Your task to perform on an android device: turn off smart reply in the gmail app Image 0: 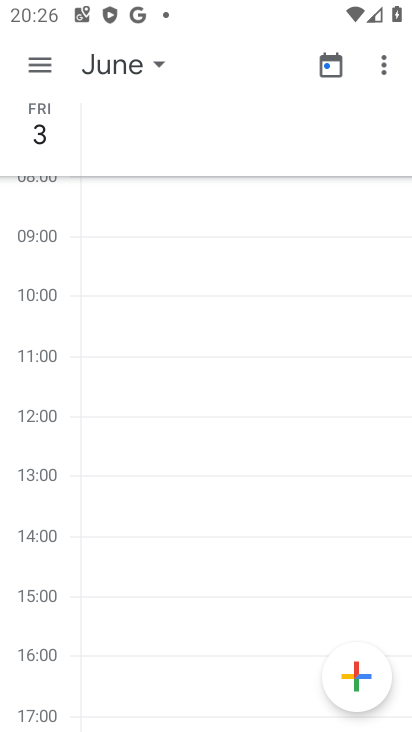
Step 0: press home button
Your task to perform on an android device: turn off smart reply in the gmail app Image 1: 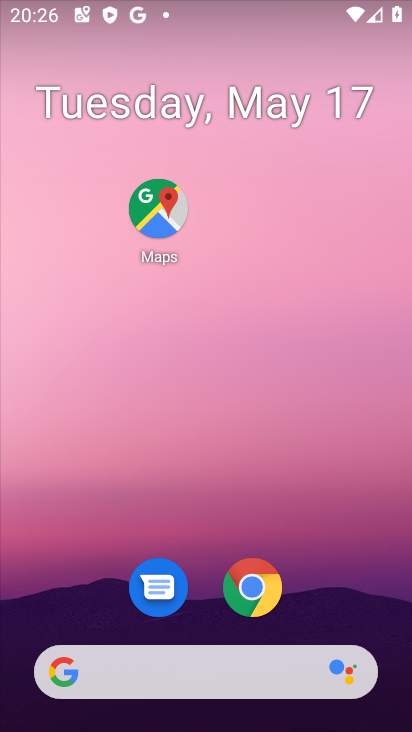
Step 1: drag from (33, 608) to (277, 186)
Your task to perform on an android device: turn off smart reply in the gmail app Image 2: 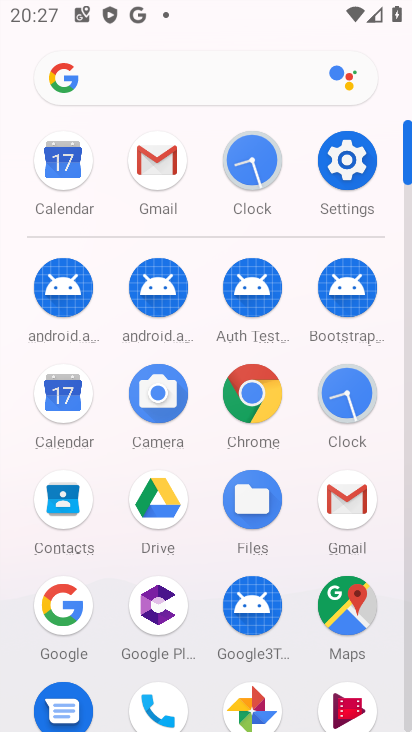
Step 2: click (157, 170)
Your task to perform on an android device: turn off smart reply in the gmail app Image 3: 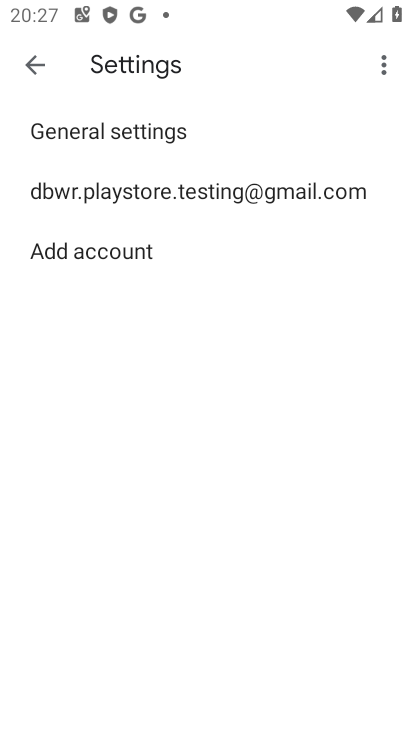
Step 3: click (173, 191)
Your task to perform on an android device: turn off smart reply in the gmail app Image 4: 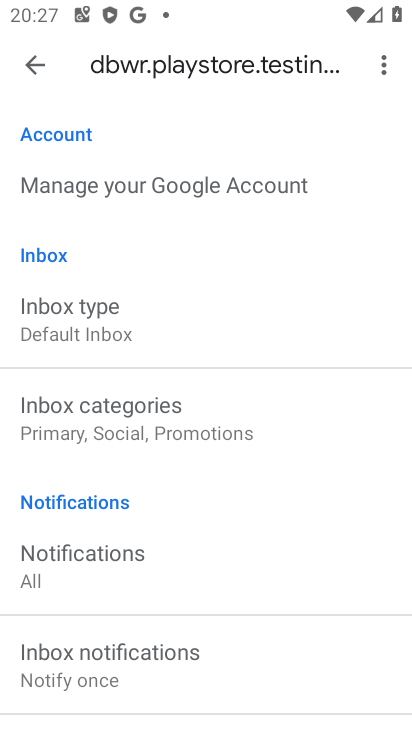
Step 4: drag from (12, 687) to (322, 119)
Your task to perform on an android device: turn off smart reply in the gmail app Image 5: 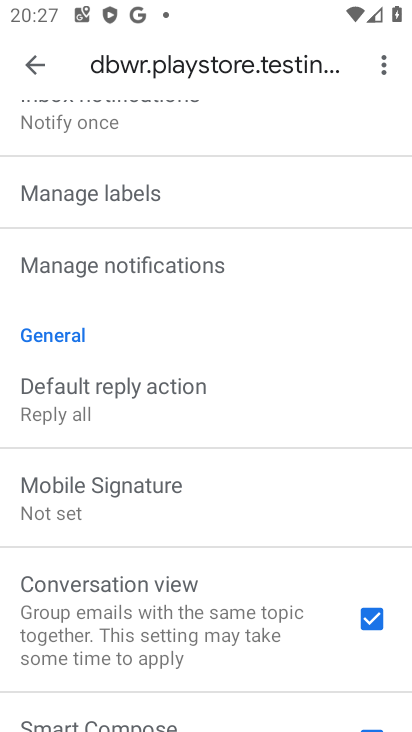
Step 5: drag from (96, 683) to (272, 185)
Your task to perform on an android device: turn off smart reply in the gmail app Image 6: 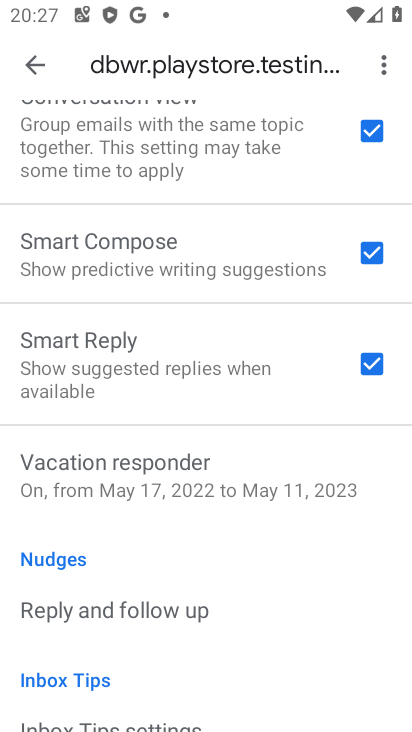
Step 6: click (367, 363)
Your task to perform on an android device: turn off smart reply in the gmail app Image 7: 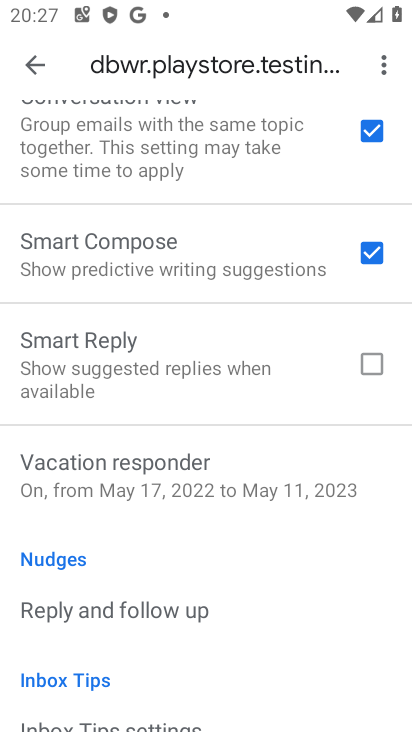
Step 7: task complete